Your task to perform on an android device: see creations saved in the google photos Image 0: 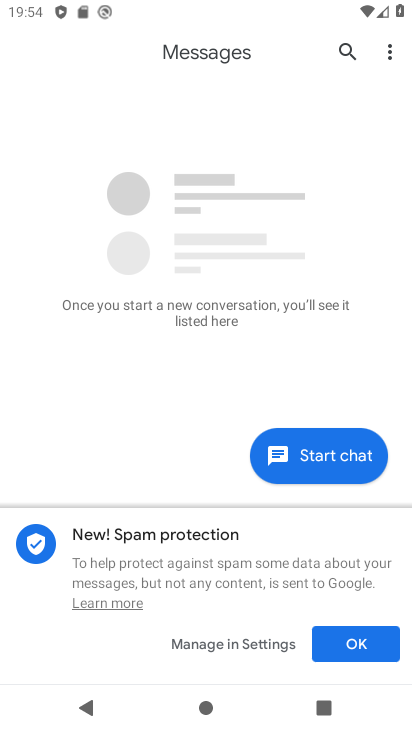
Step 0: press home button
Your task to perform on an android device: see creations saved in the google photos Image 1: 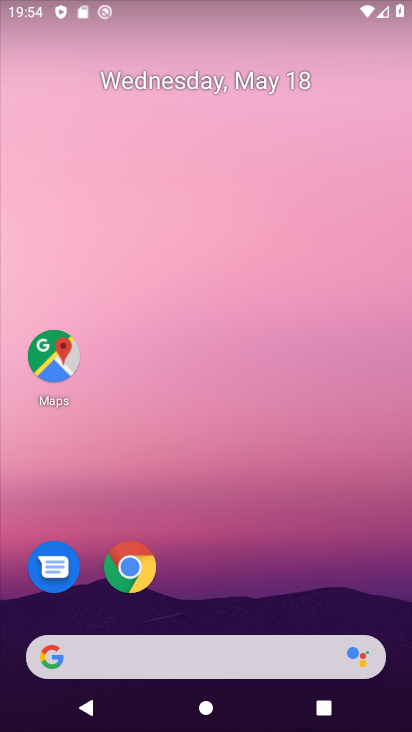
Step 1: drag from (187, 578) to (161, 253)
Your task to perform on an android device: see creations saved in the google photos Image 2: 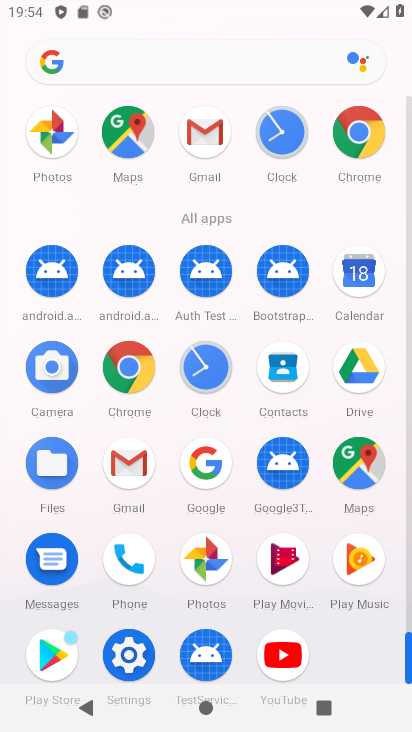
Step 2: click (208, 563)
Your task to perform on an android device: see creations saved in the google photos Image 3: 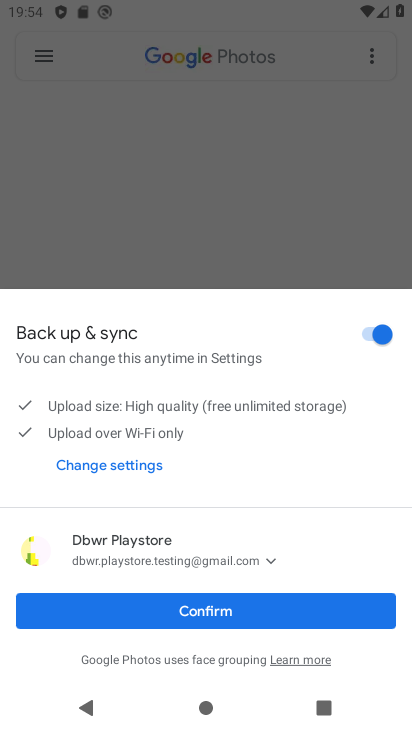
Step 3: click (167, 621)
Your task to perform on an android device: see creations saved in the google photos Image 4: 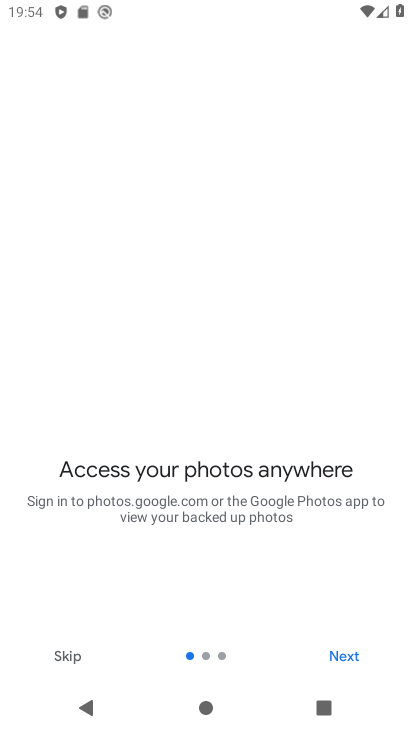
Step 4: click (340, 655)
Your task to perform on an android device: see creations saved in the google photos Image 5: 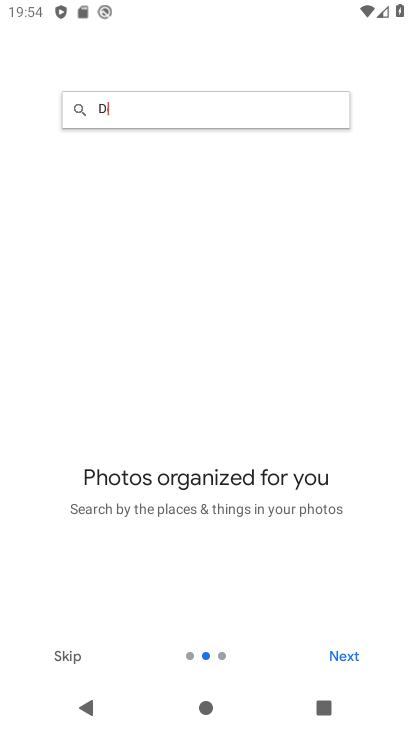
Step 5: click (340, 653)
Your task to perform on an android device: see creations saved in the google photos Image 6: 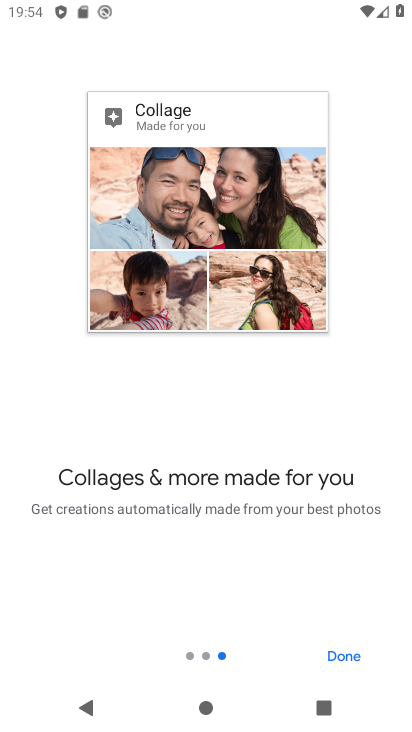
Step 6: click (338, 659)
Your task to perform on an android device: see creations saved in the google photos Image 7: 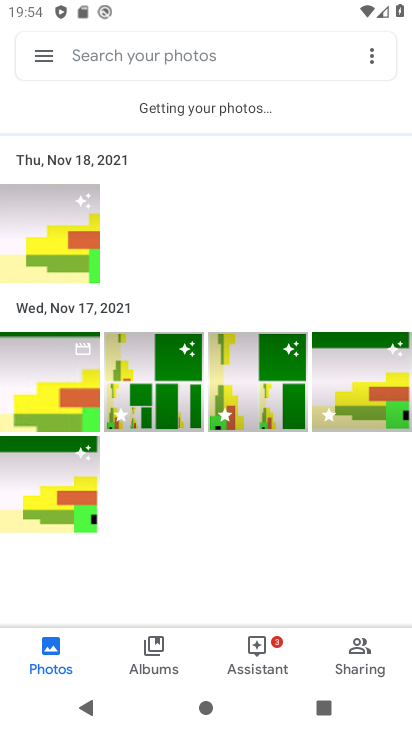
Step 7: click (153, 65)
Your task to perform on an android device: see creations saved in the google photos Image 8: 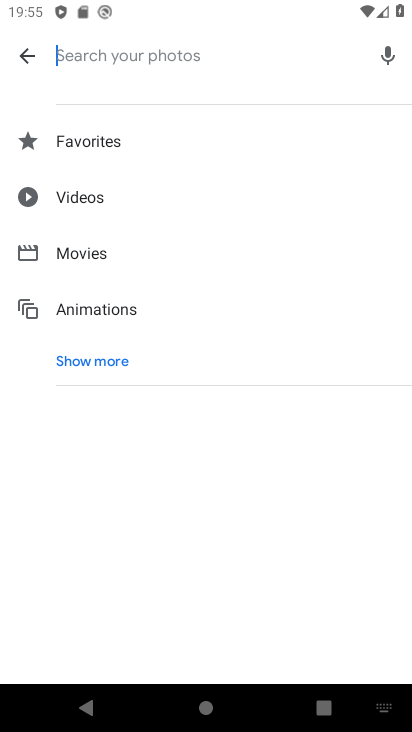
Step 8: type "see creations "
Your task to perform on an android device: see creations saved in the google photos Image 9: 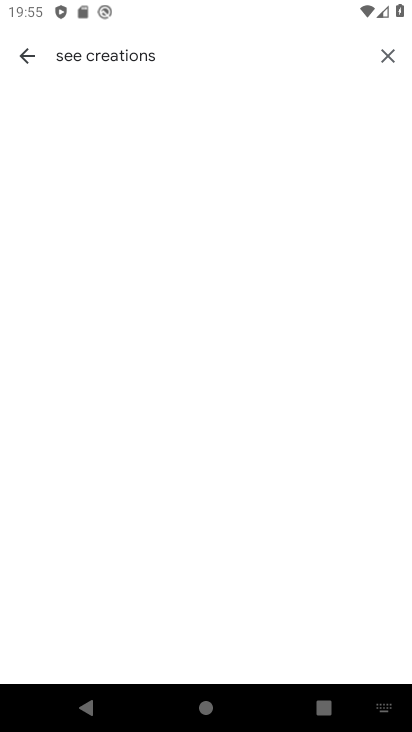
Step 9: click (76, 56)
Your task to perform on an android device: see creations saved in the google photos Image 10: 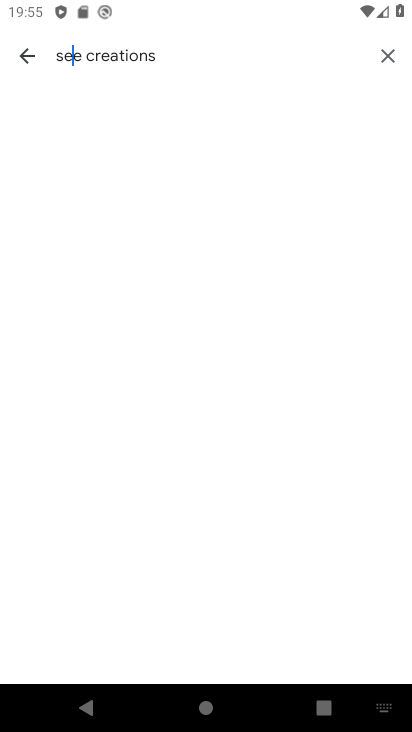
Step 10: click (392, 48)
Your task to perform on an android device: see creations saved in the google photos Image 11: 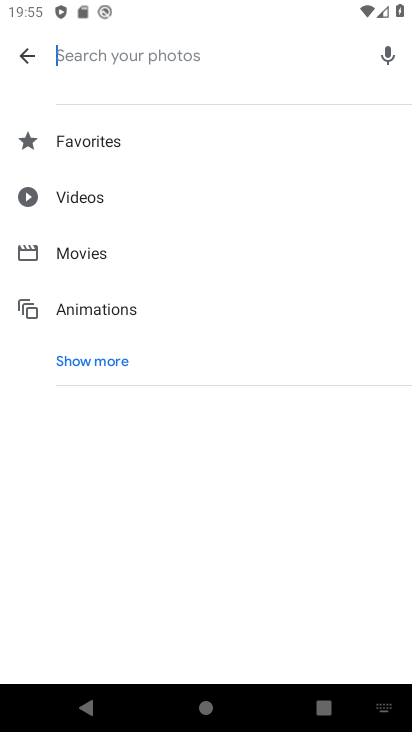
Step 11: type "creations"
Your task to perform on an android device: see creations saved in the google photos Image 12: 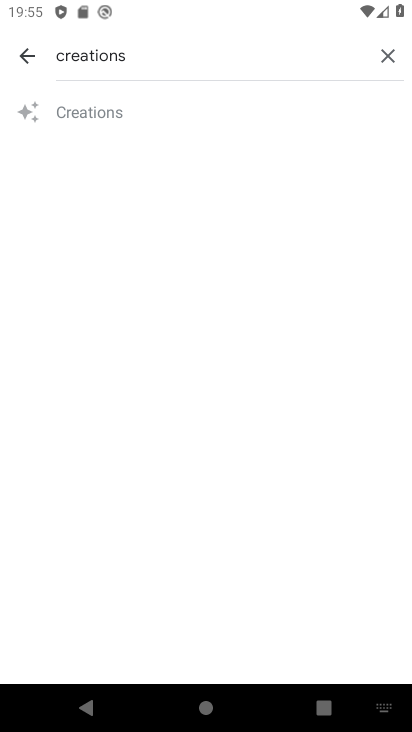
Step 12: click (143, 117)
Your task to perform on an android device: see creations saved in the google photos Image 13: 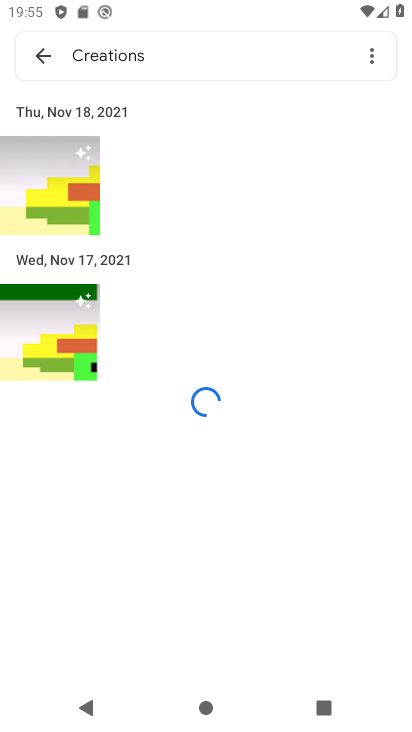
Step 13: task complete